Your task to perform on an android device: Open privacy settings Image 0: 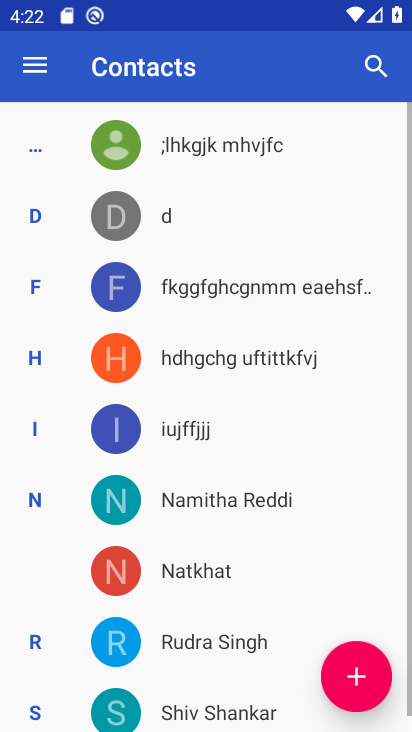
Step 0: drag from (320, 572) to (323, 223)
Your task to perform on an android device: Open privacy settings Image 1: 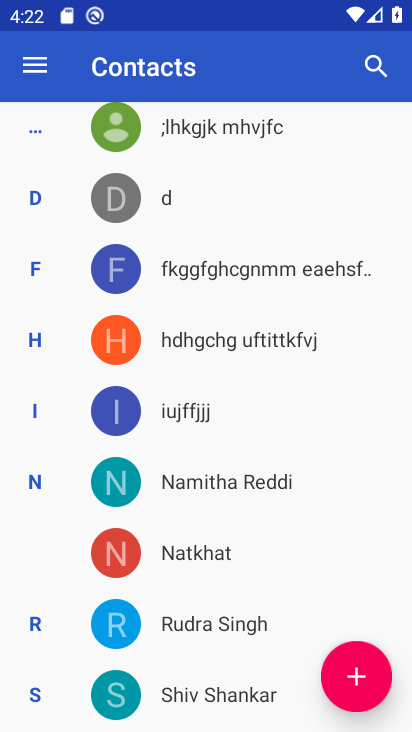
Step 1: press home button
Your task to perform on an android device: Open privacy settings Image 2: 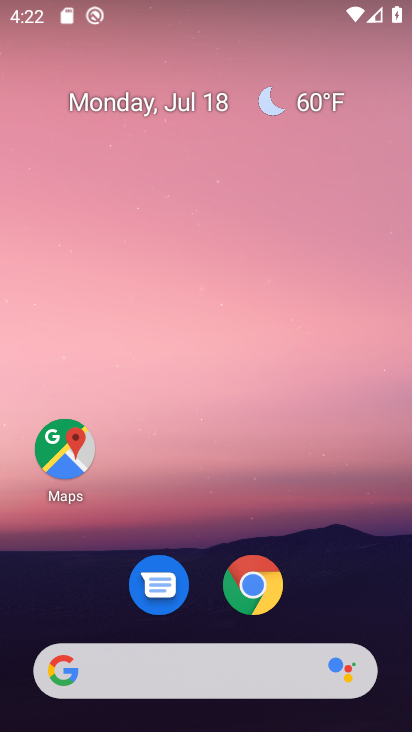
Step 2: drag from (330, 558) to (383, 42)
Your task to perform on an android device: Open privacy settings Image 3: 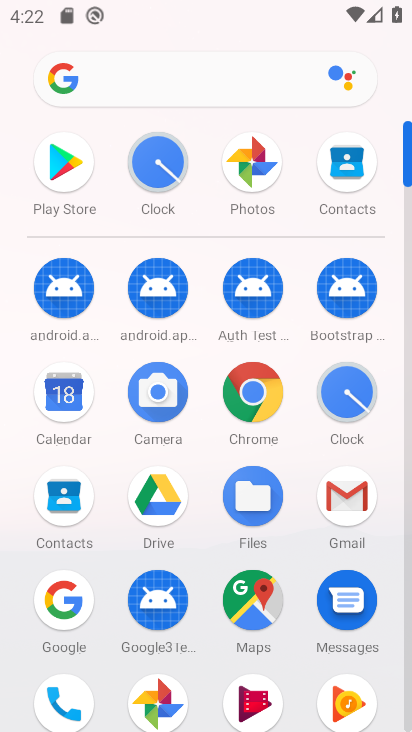
Step 3: drag from (198, 551) to (228, 95)
Your task to perform on an android device: Open privacy settings Image 4: 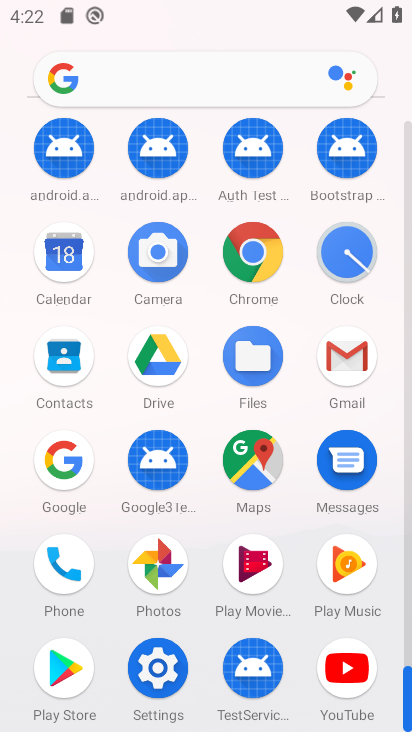
Step 4: click (160, 651)
Your task to perform on an android device: Open privacy settings Image 5: 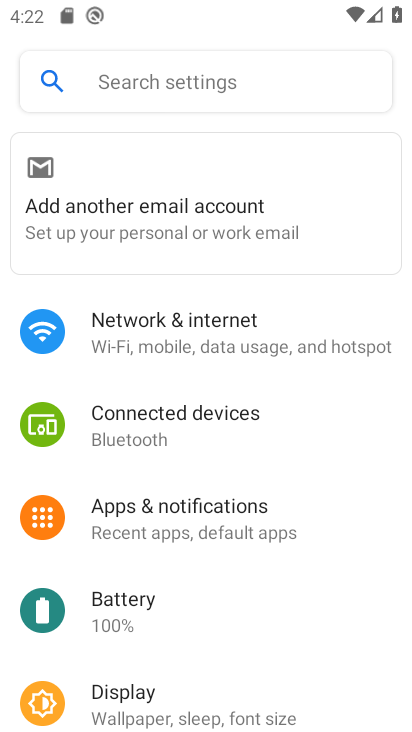
Step 5: drag from (242, 656) to (304, 51)
Your task to perform on an android device: Open privacy settings Image 6: 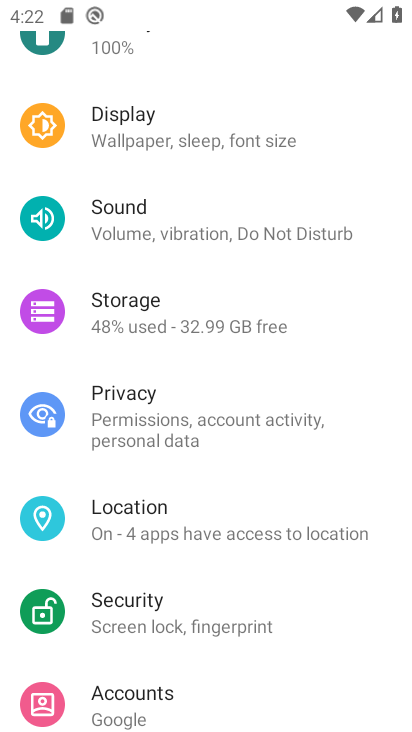
Step 6: click (231, 414)
Your task to perform on an android device: Open privacy settings Image 7: 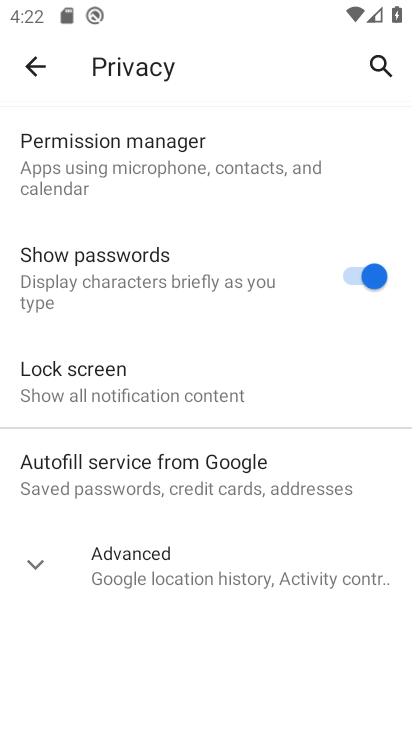
Step 7: click (36, 559)
Your task to perform on an android device: Open privacy settings Image 8: 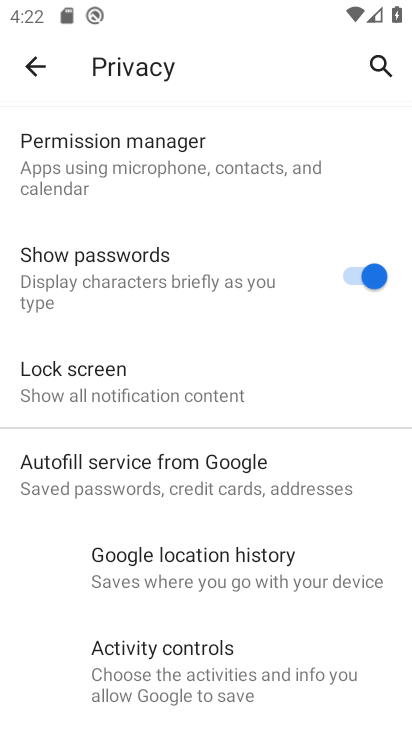
Step 8: task complete